Your task to perform on an android device: Open the stopwatch Image 0: 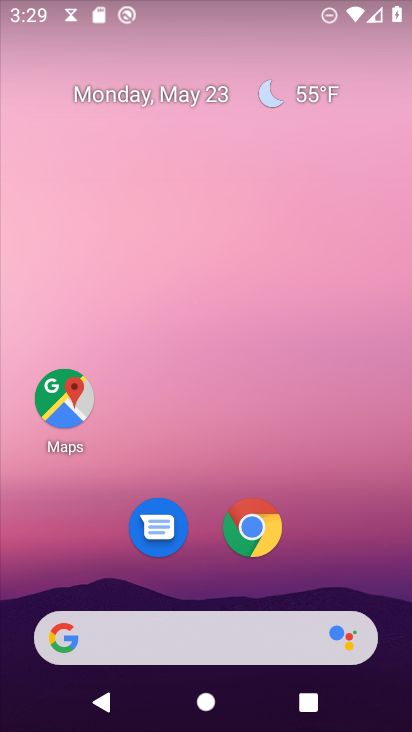
Step 0: drag from (204, 591) to (249, 64)
Your task to perform on an android device: Open the stopwatch Image 1: 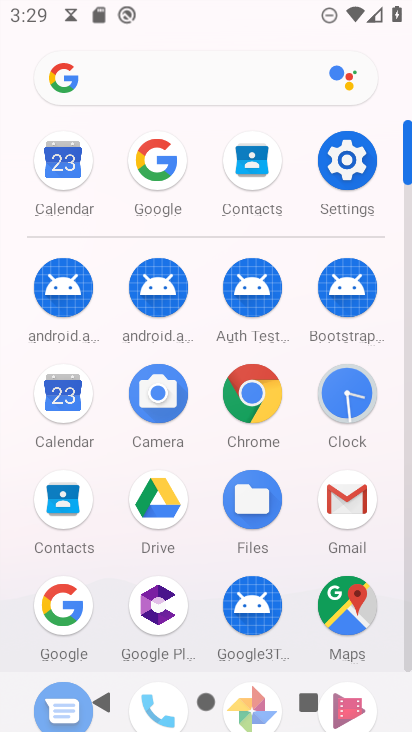
Step 1: click (341, 397)
Your task to perform on an android device: Open the stopwatch Image 2: 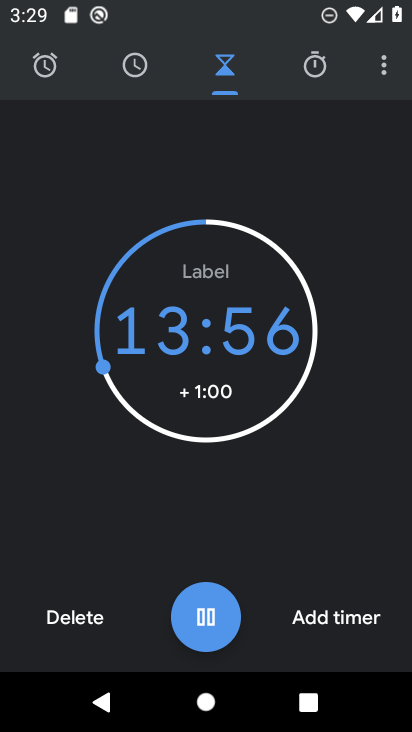
Step 2: click (52, 619)
Your task to perform on an android device: Open the stopwatch Image 3: 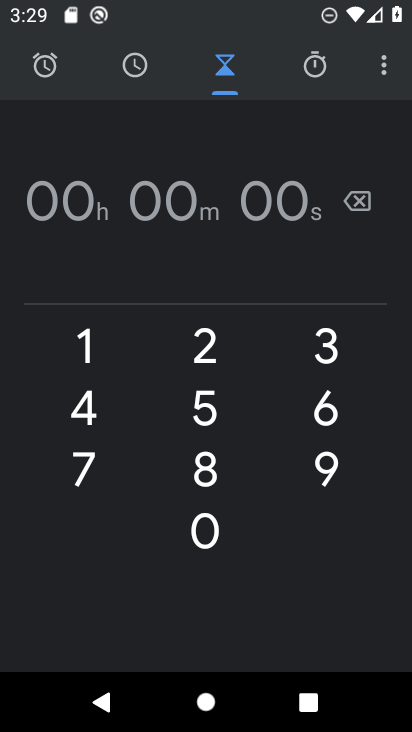
Step 3: click (315, 61)
Your task to perform on an android device: Open the stopwatch Image 4: 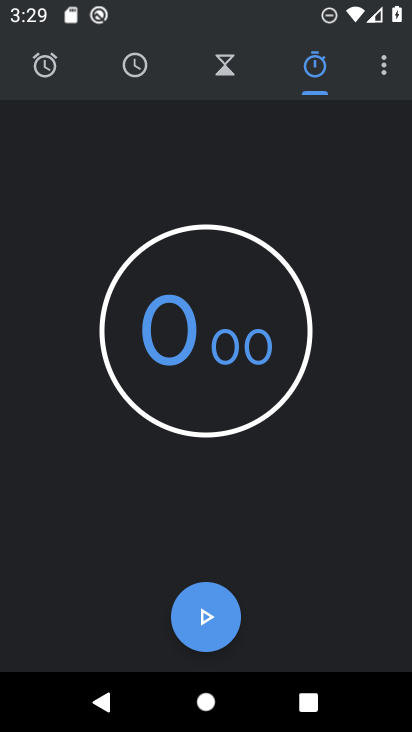
Step 4: click (196, 618)
Your task to perform on an android device: Open the stopwatch Image 5: 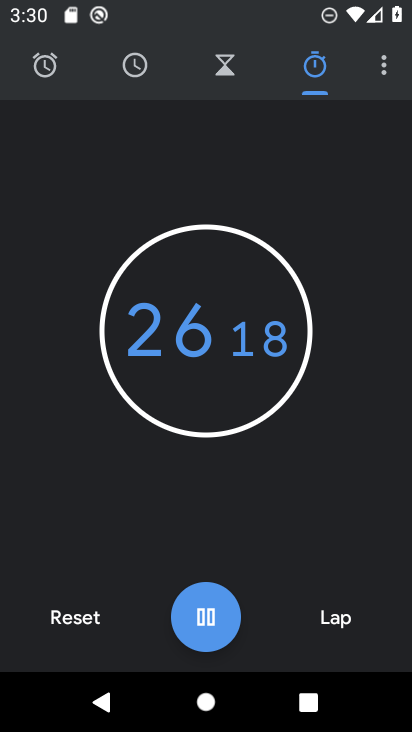
Step 5: click (73, 615)
Your task to perform on an android device: Open the stopwatch Image 6: 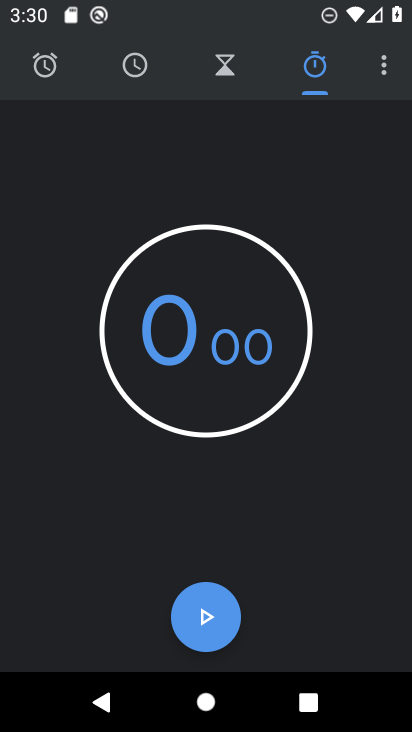
Step 6: task complete